Your task to perform on an android device: Open the calendar app, open the side menu, and click the "Day" option Image 0: 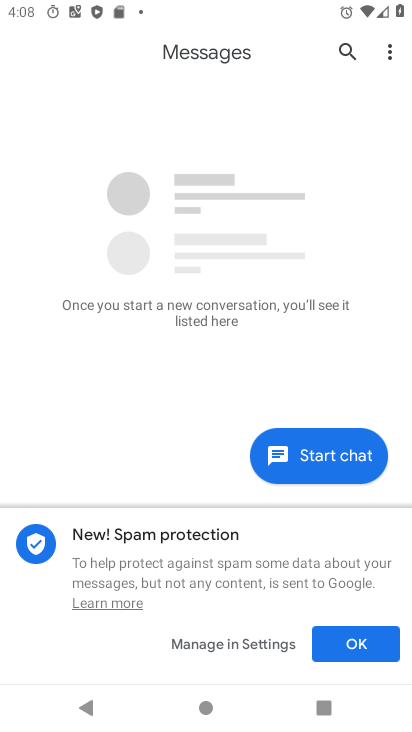
Step 0: press home button
Your task to perform on an android device: Open the calendar app, open the side menu, and click the "Day" option Image 1: 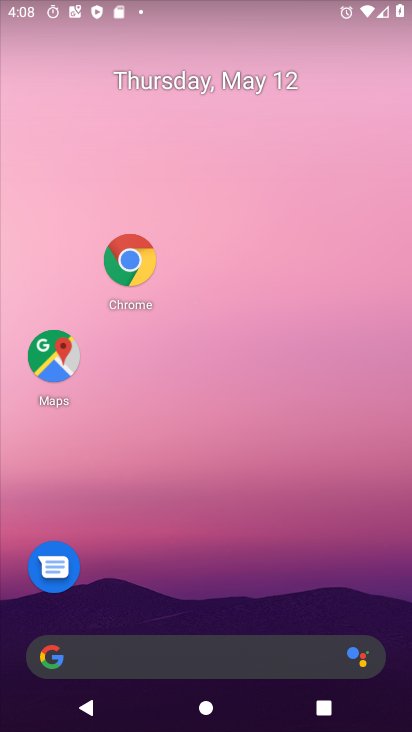
Step 1: drag from (204, 626) to (196, 277)
Your task to perform on an android device: Open the calendar app, open the side menu, and click the "Day" option Image 2: 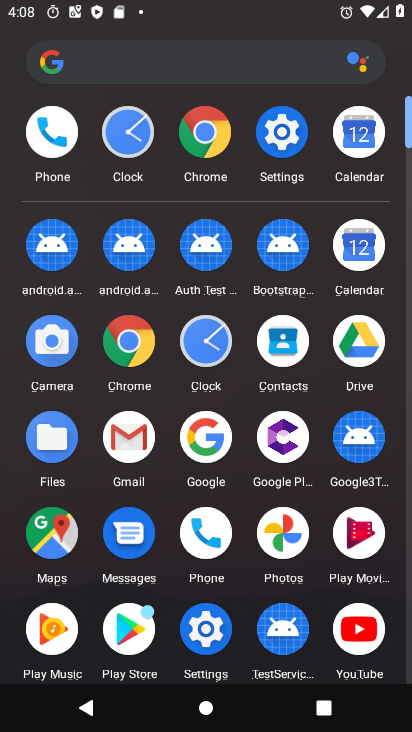
Step 2: click (357, 253)
Your task to perform on an android device: Open the calendar app, open the side menu, and click the "Day" option Image 3: 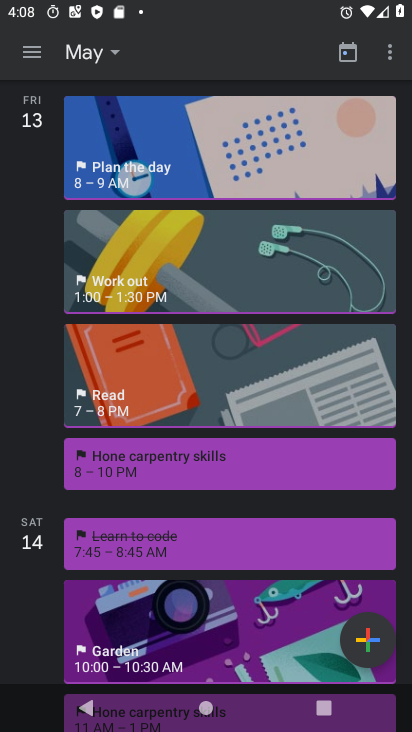
Step 3: click (30, 54)
Your task to perform on an android device: Open the calendar app, open the side menu, and click the "Day" option Image 4: 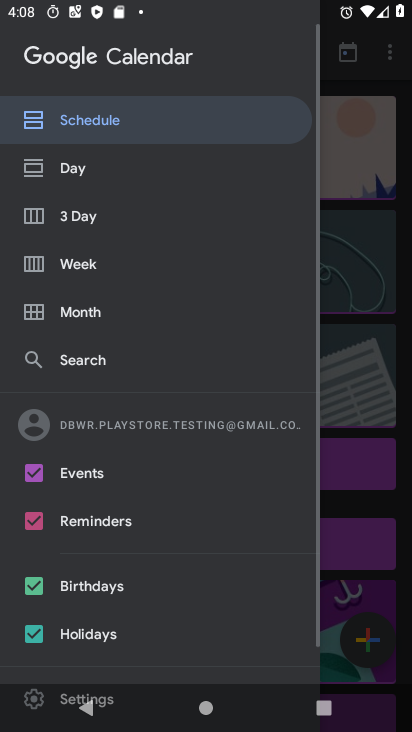
Step 4: click (80, 176)
Your task to perform on an android device: Open the calendar app, open the side menu, and click the "Day" option Image 5: 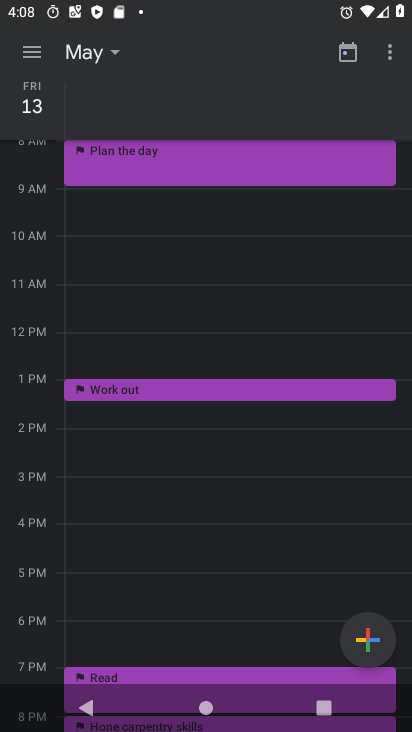
Step 5: task complete